Your task to perform on an android device: open app "Pandora - Music & Podcasts" Image 0: 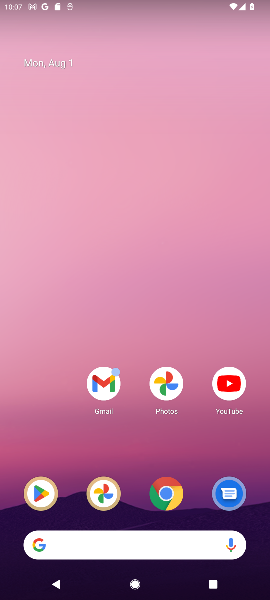
Step 0: click (84, 541)
Your task to perform on an android device: open app "Pandora - Music & Podcasts" Image 1: 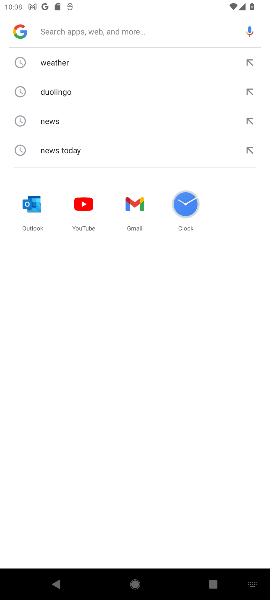
Step 1: type "pandora"
Your task to perform on an android device: open app "Pandora - Music & Podcasts" Image 2: 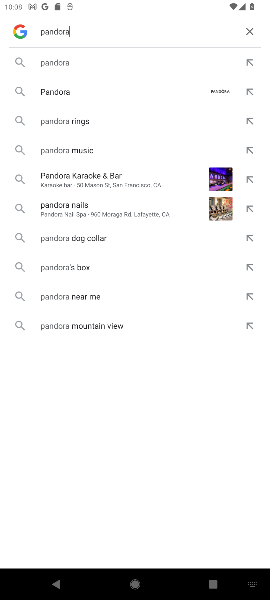
Step 2: task complete